Your task to perform on an android device: Open wifi settings Image 0: 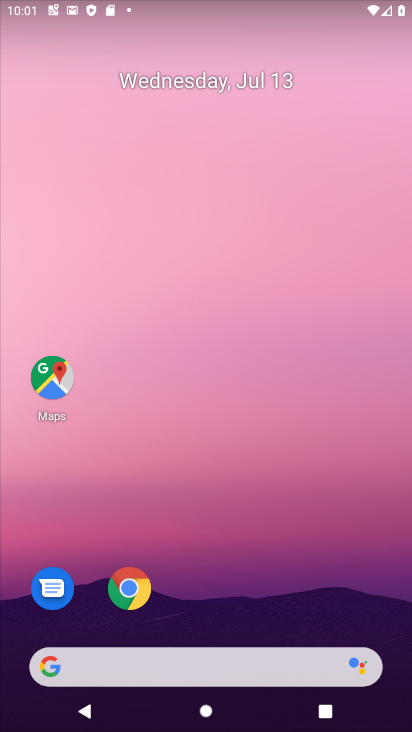
Step 0: drag from (200, 641) to (189, 50)
Your task to perform on an android device: Open wifi settings Image 1: 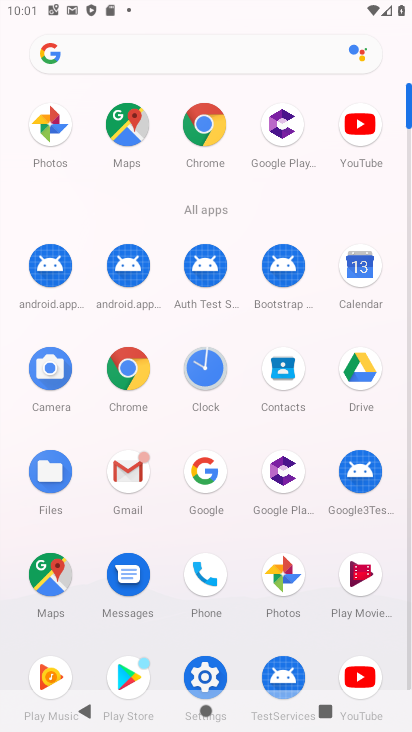
Step 1: click (202, 658)
Your task to perform on an android device: Open wifi settings Image 2: 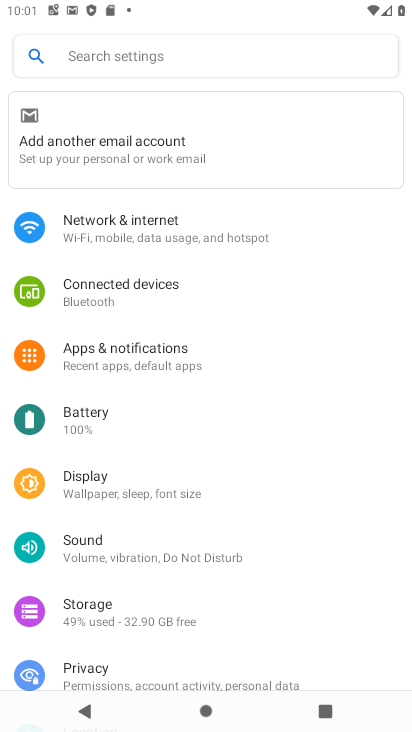
Step 2: click (106, 224)
Your task to perform on an android device: Open wifi settings Image 3: 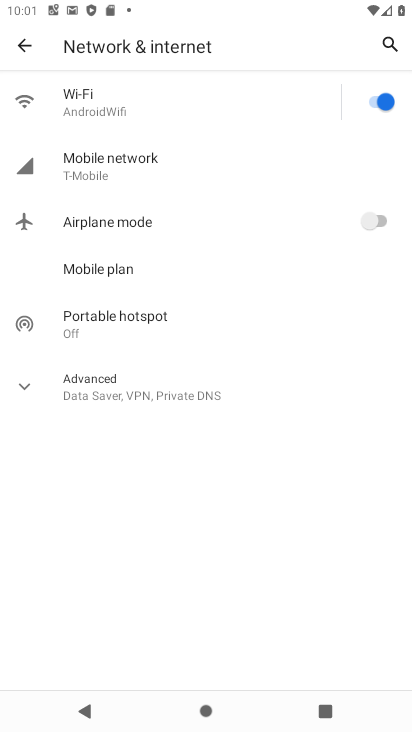
Step 3: click (155, 125)
Your task to perform on an android device: Open wifi settings Image 4: 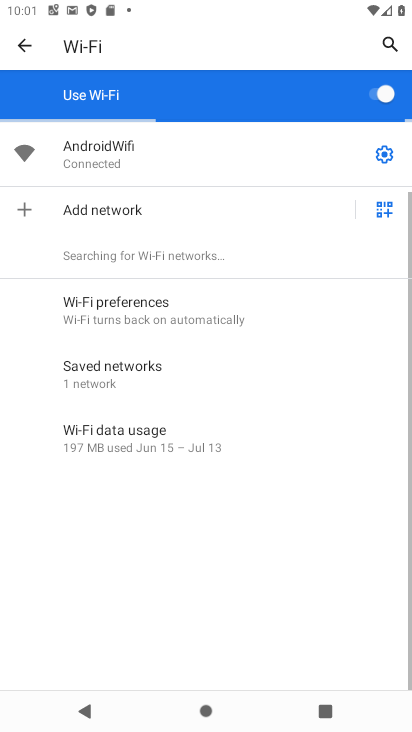
Step 4: task complete